Your task to perform on an android device: Open the calendar app, open the side menu, and click the "Day" option Image 0: 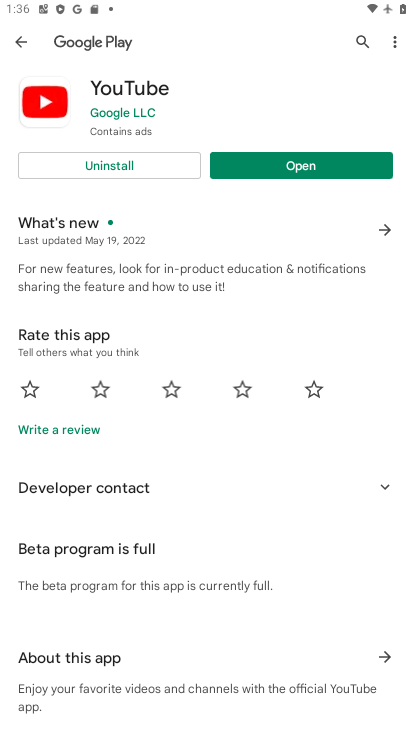
Step 0: press home button
Your task to perform on an android device: Open the calendar app, open the side menu, and click the "Day" option Image 1: 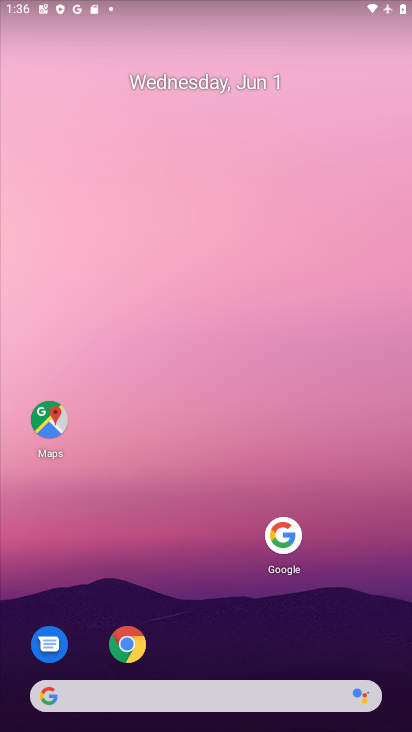
Step 1: drag from (266, 440) to (333, 220)
Your task to perform on an android device: Open the calendar app, open the side menu, and click the "Day" option Image 2: 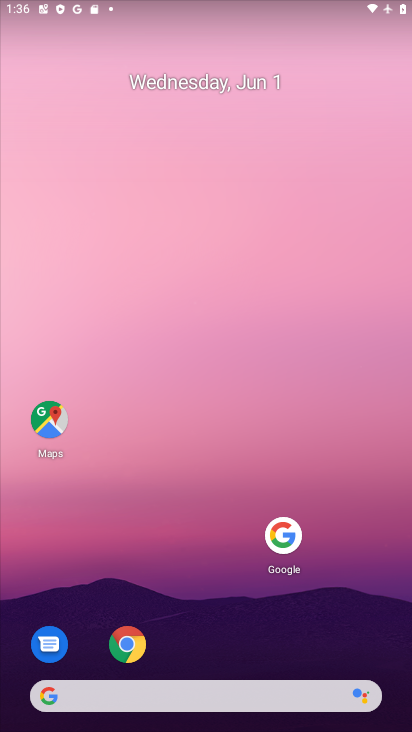
Step 2: drag from (202, 699) to (302, 230)
Your task to perform on an android device: Open the calendar app, open the side menu, and click the "Day" option Image 3: 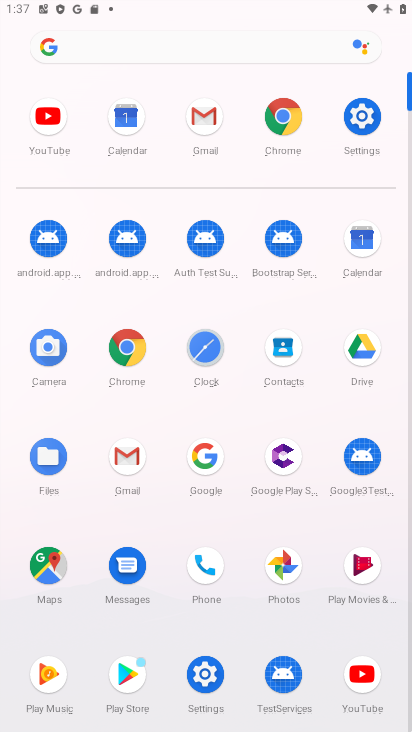
Step 3: click (363, 248)
Your task to perform on an android device: Open the calendar app, open the side menu, and click the "Day" option Image 4: 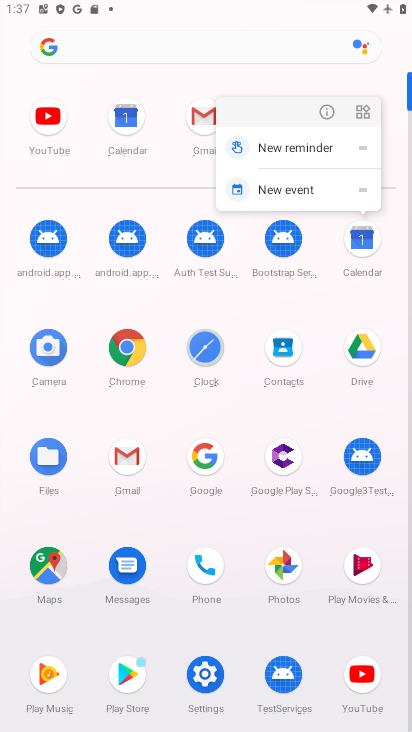
Step 4: click (363, 249)
Your task to perform on an android device: Open the calendar app, open the side menu, and click the "Day" option Image 5: 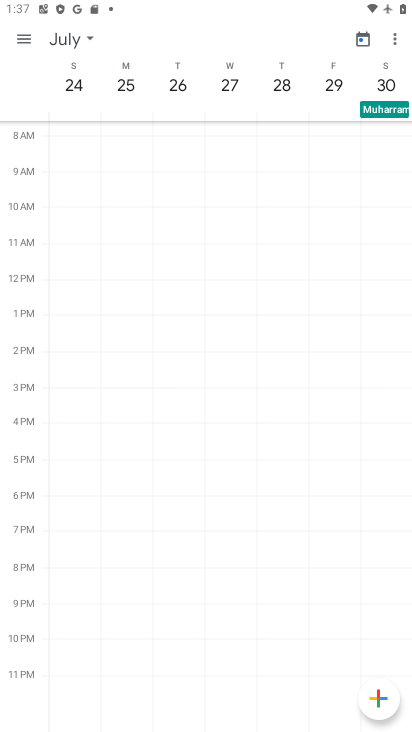
Step 5: click (29, 37)
Your task to perform on an android device: Open the calendar app, open the side menu, and click the "Day" option Image 6: 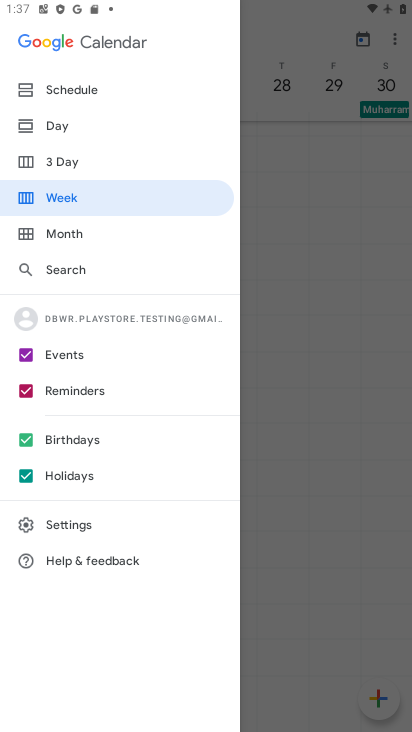
Step 6: click (61, 129)
Your task to perform on an android device: Open the calendar app, open the side menu, and click the "Day" option Image 7: 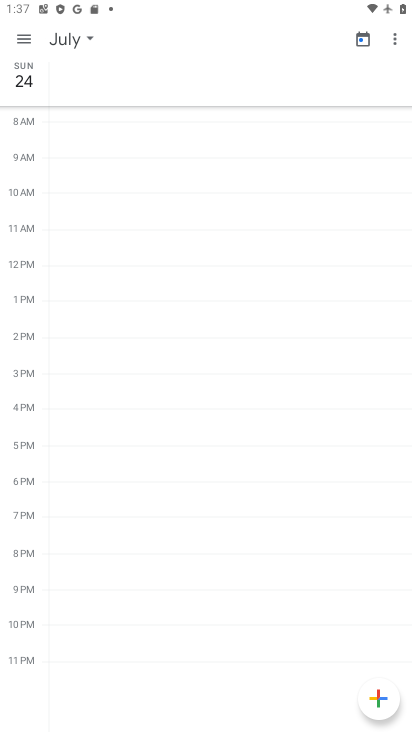
Step 7: task complete